Your task to perform on an android device: install app "Airtel Thanks" Image 0: 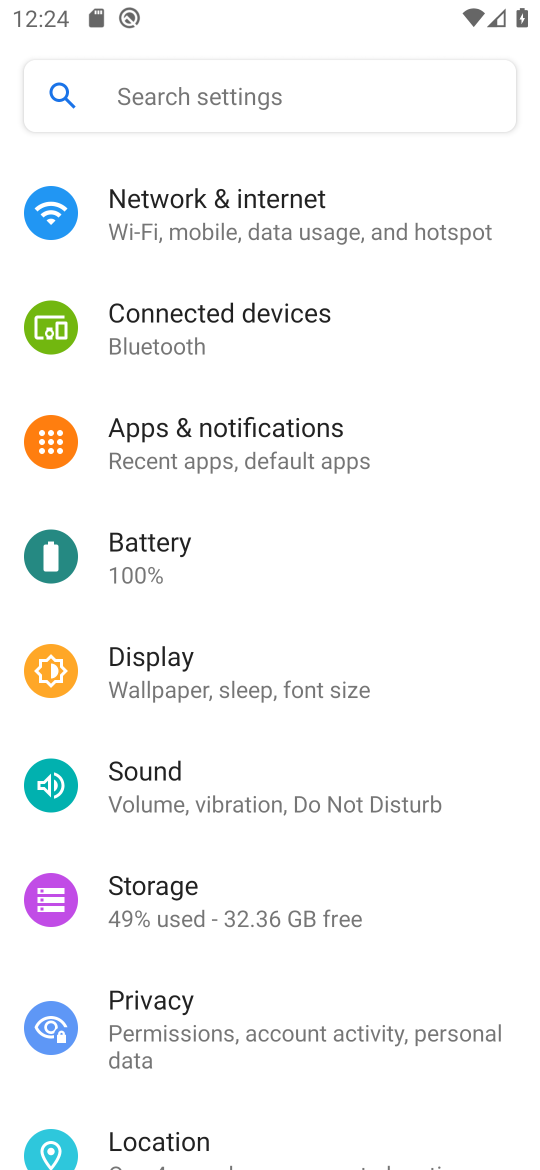
Step 0: press home button
Your task to perform on an android device: install app "Airtel Thanks" Image 1: 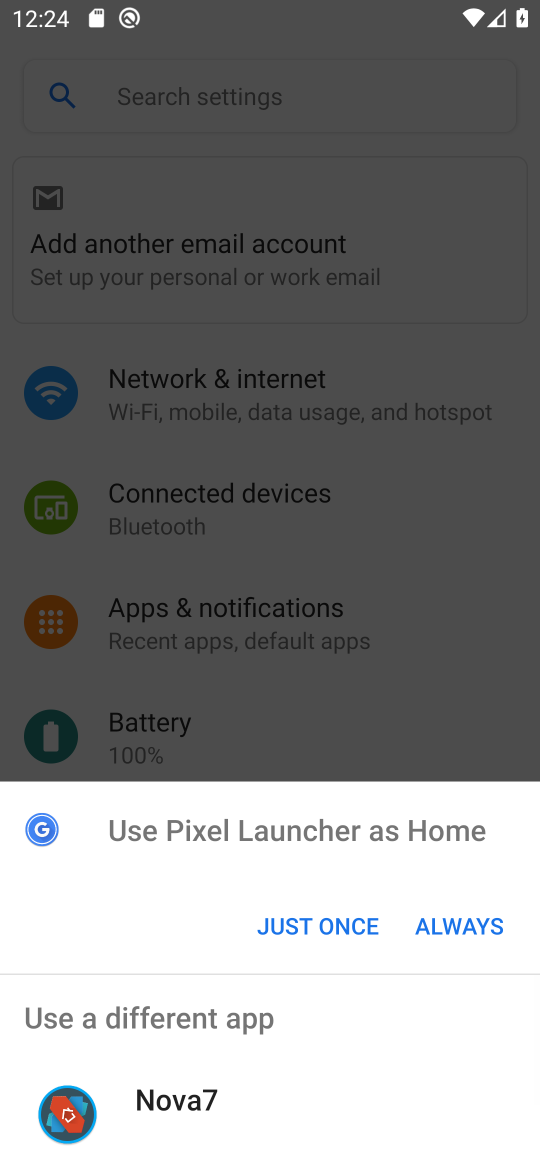
Step 1: click (300, 914)
Your task to perform on an android device: install app "Airtel Thanks" Image 2: 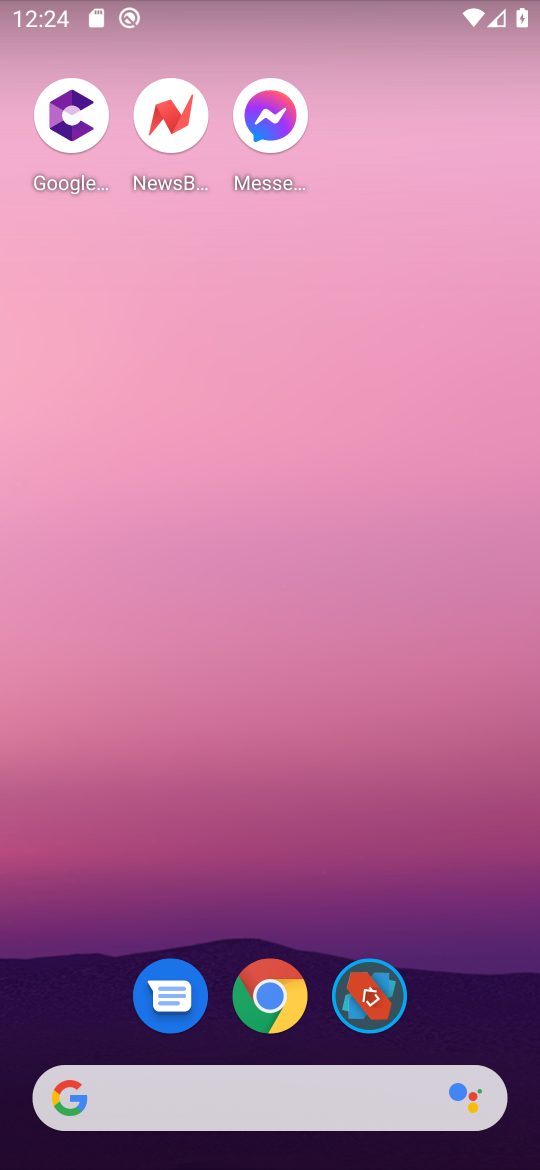
Step 2: drag from (141, 1070) to (312, 117)
Your task to perform on an android device: install app "Airtel Thanks" Image 3: 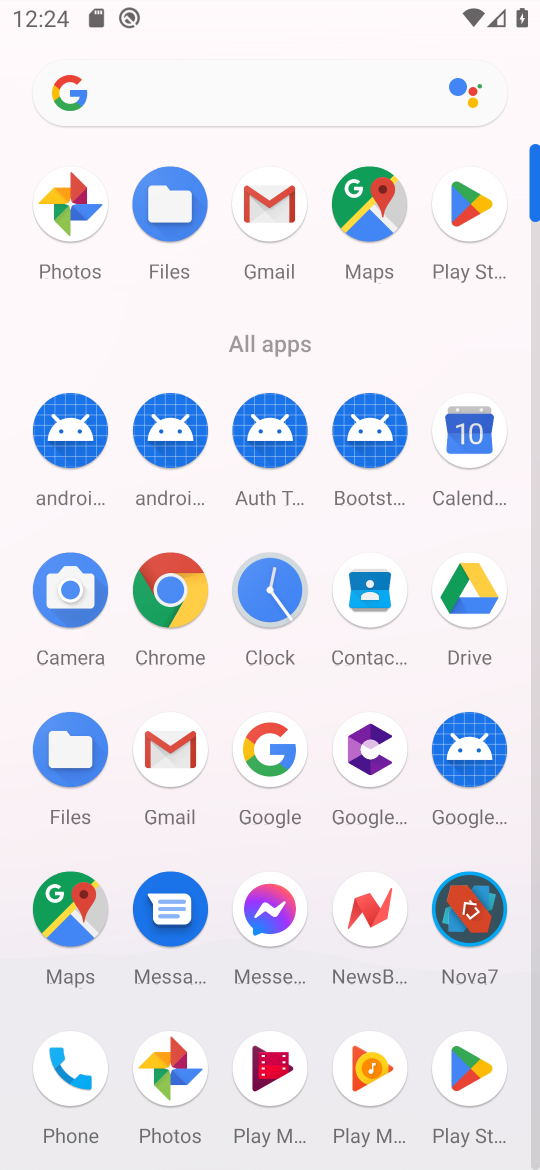
Step 3: click (499, 209)
Your task to perform on an android device: install app "Airtel Thanks" Image 4: 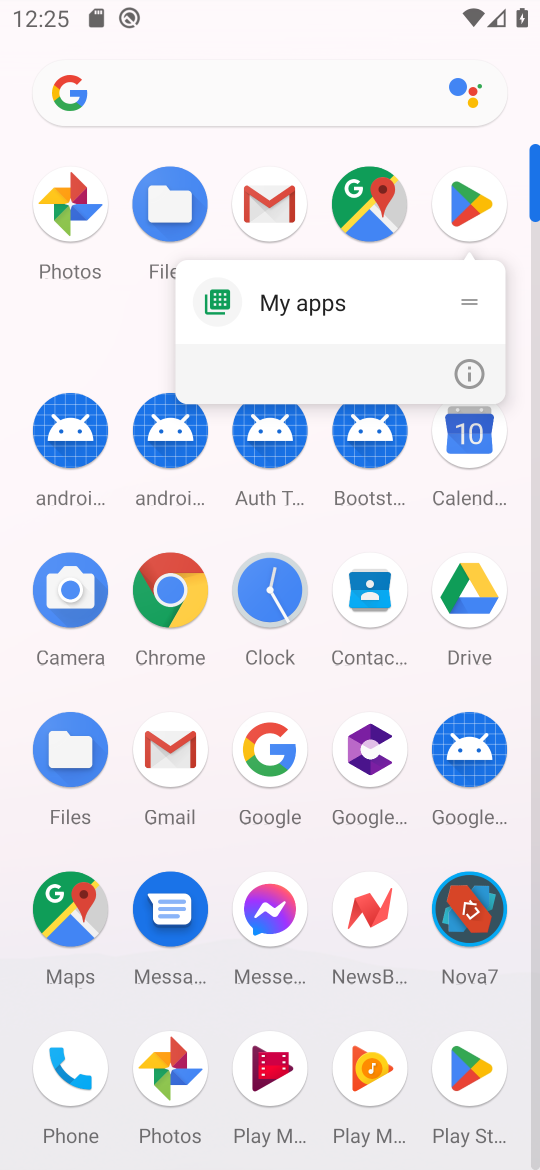
Step 4: click (447, 195)
Your task to perform on an android device: install app "Airtel Thanks" Image 5: 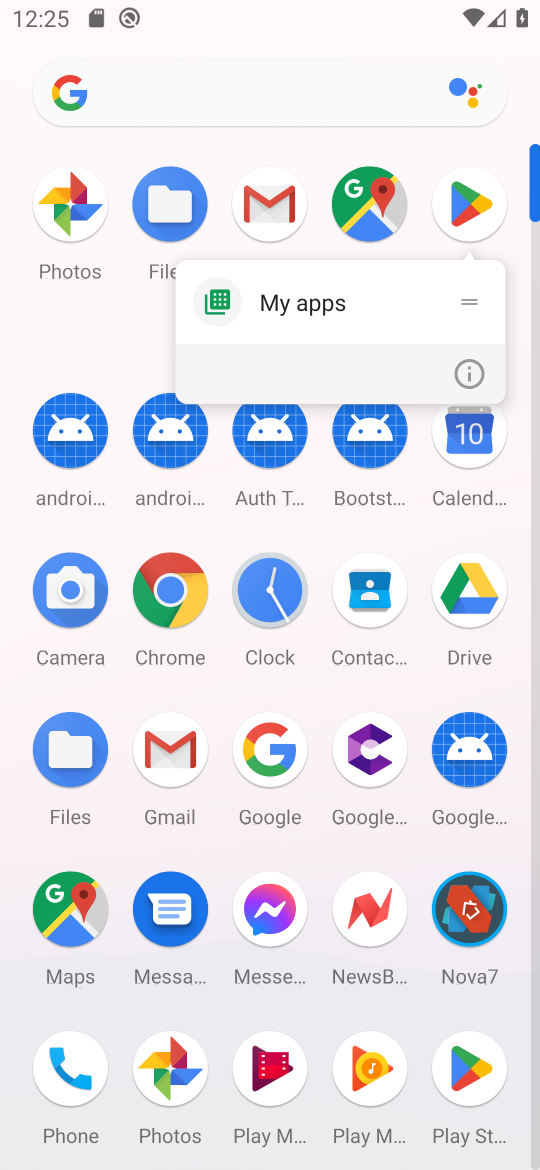
Step 5: click (485, 211)
Your task to perform on an android device: install app "Airtel Thanks" Image 6: 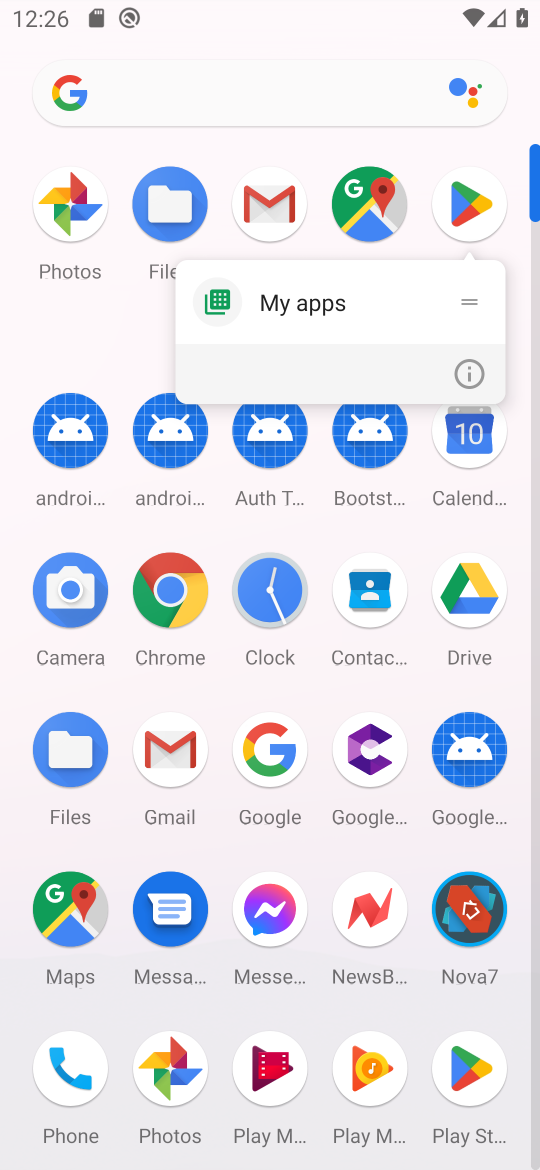
Step 6: click (460, 221)
Your task to perform on an android device: install app "Airtel Thanks" Image 7: 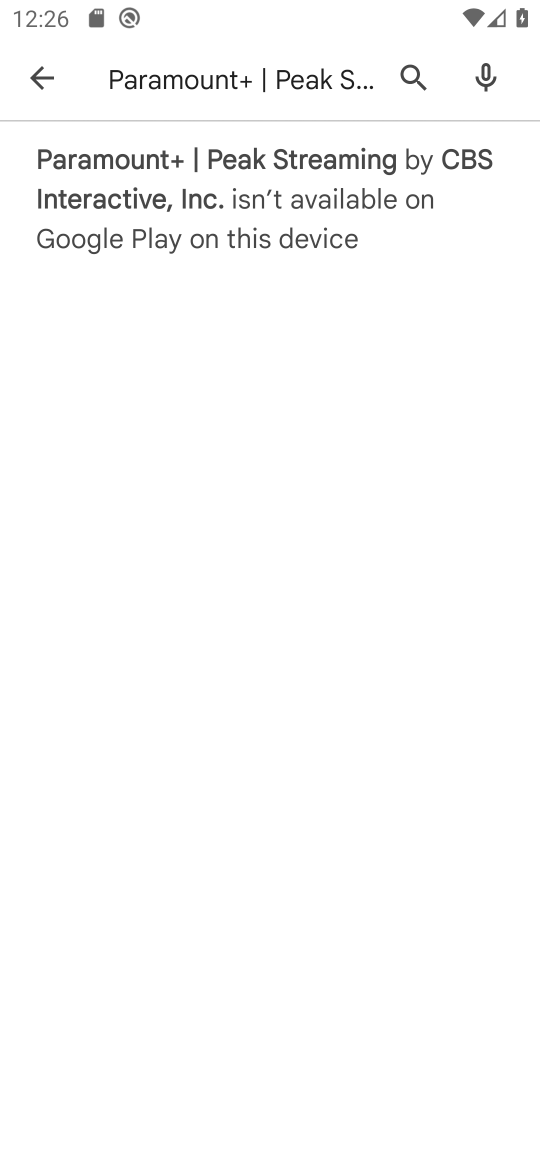
Step 7: click (39, 78)
Your task to perform on an android device: install app "Airtel Thanks" Image 8: 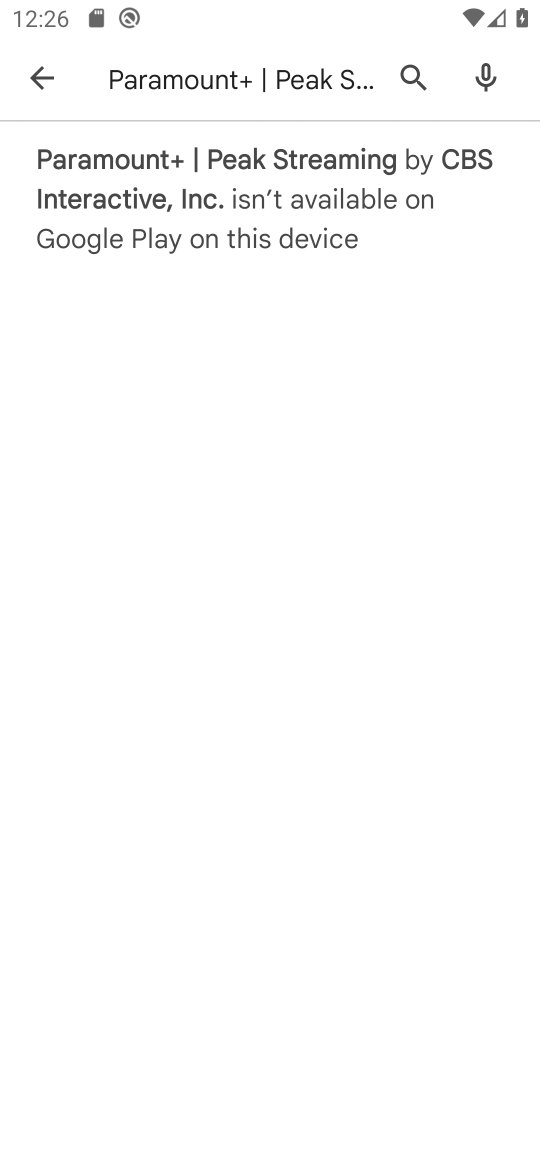
Step 8: press back button
Your task to perform on an android device: install app "Airtel Thanks" Image 9: 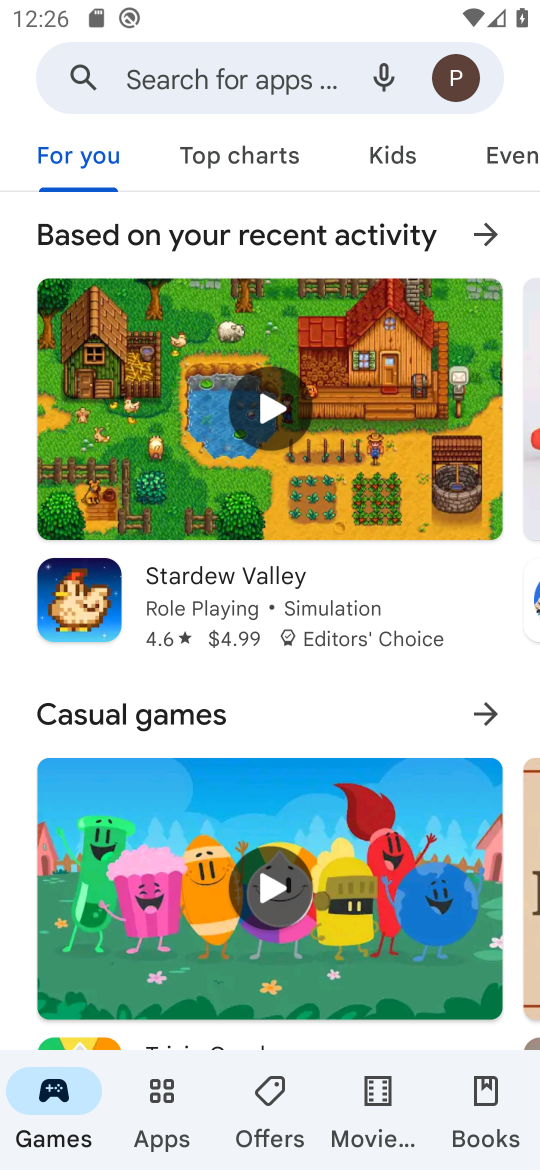
Step 9: click (280, 86)
Your task to perform on an android device: install app "Airtel Thanks" Image 10: 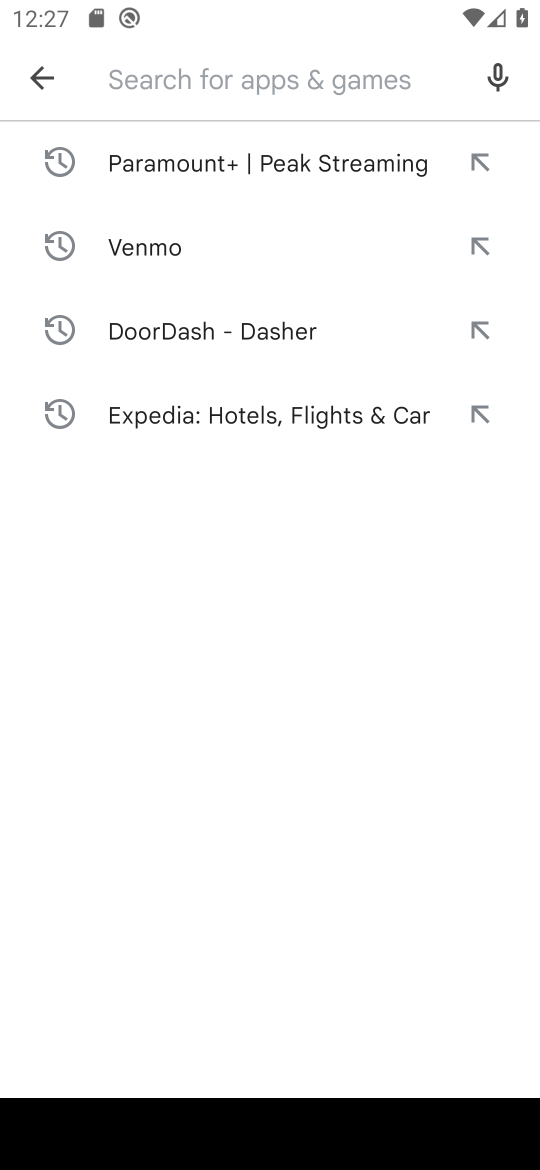
Step 10: type "Airtel Thanks"
Your task to perform on an android device: install app "Airtel Thanks" Image 11: 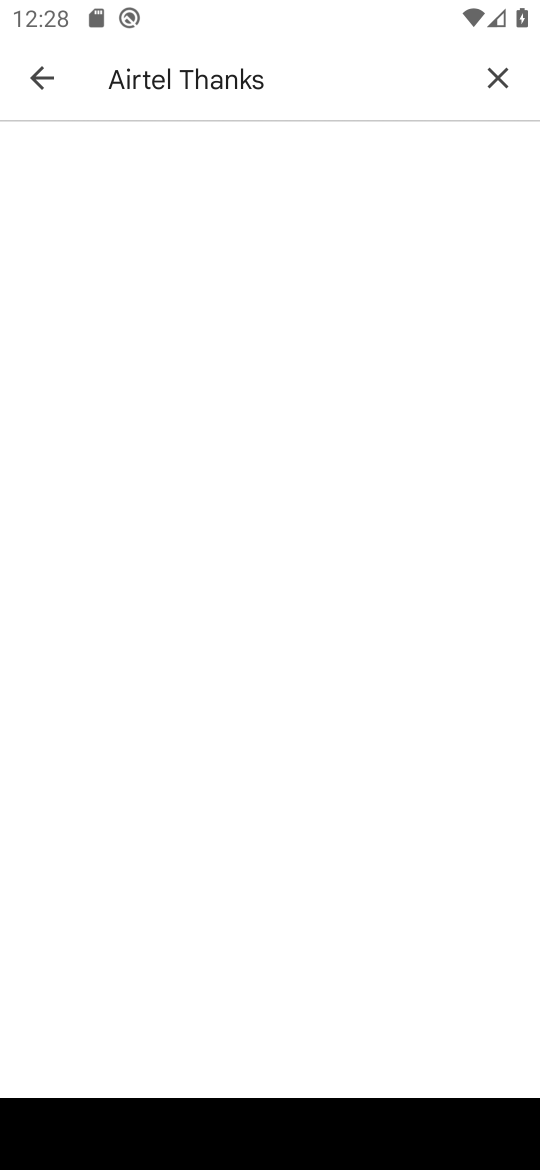
Step 11: press enter
Your task to perform on an android device: install app "Airtel Thanks" Image 12: 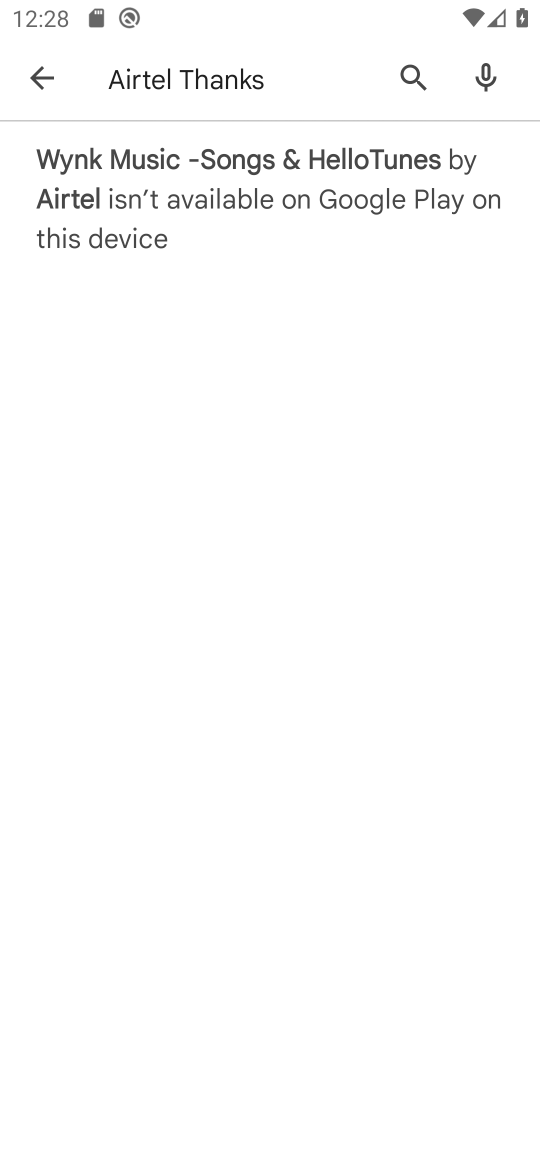
Step 12: task complete